Your task to perform on an android device: Open Reddit.com Image 0: 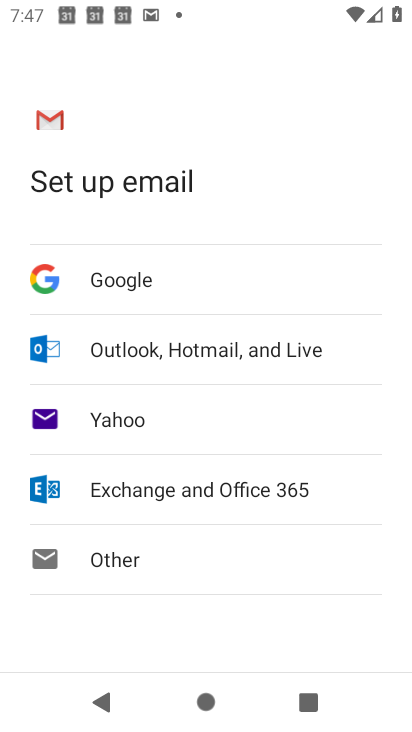
Step 0: press home button
Your task to perform on an android device: Open Reddit.com Image 1: 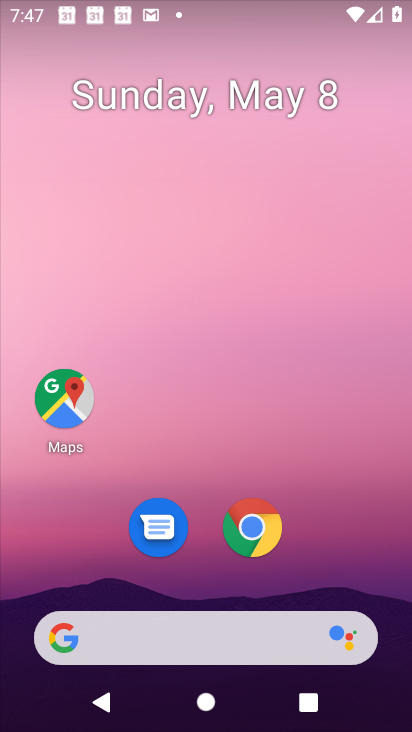
Step 1: click (252, 534)
Your task to perform on an android device: Open Reddit.com Image 2: 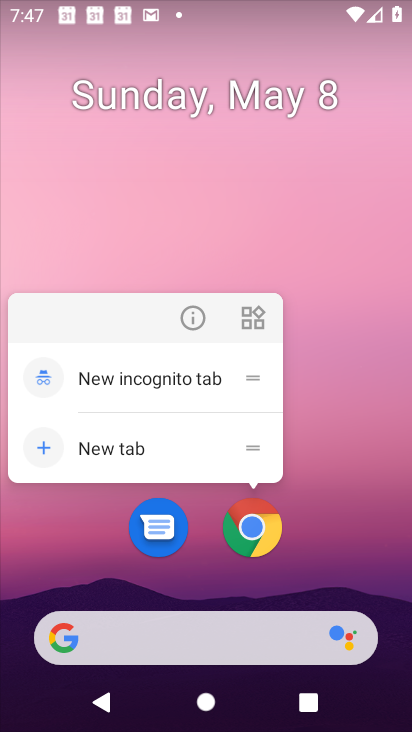
Step 2: click (252, 534)
Your task to perform on an android device: Open Reddit.com Image 3: 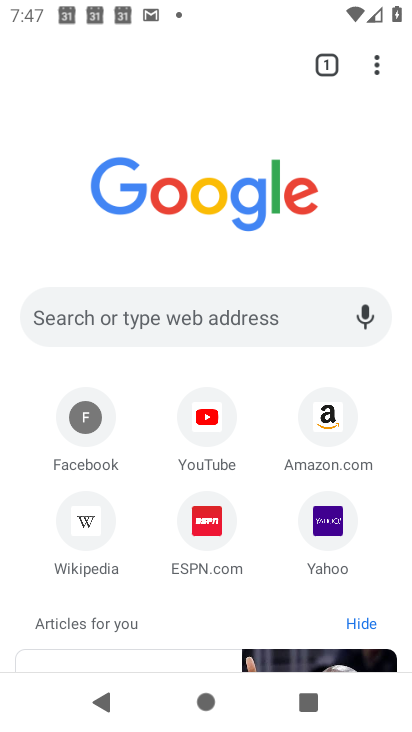
Step 3: click (232, 309)
Your task to perform on an android device: Open Reddit.com Image 4: 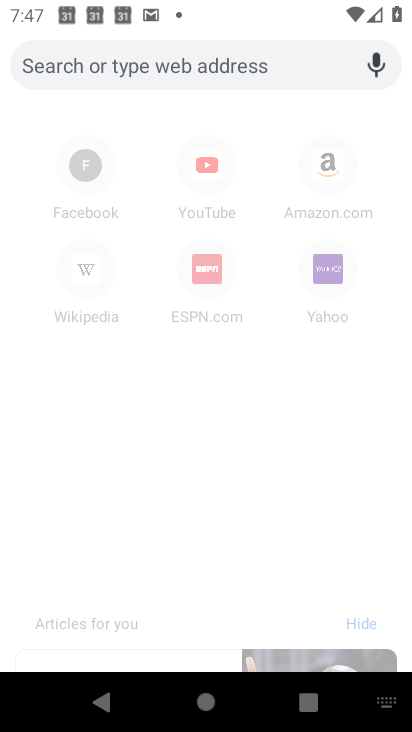
Step 4: type "Reddit.com"
Your task to perform on an android device: Open Reddit.com Image 5: 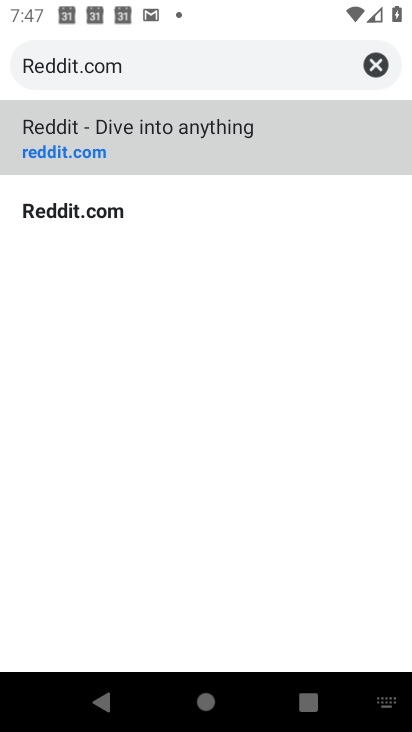
Step 5: click (114, 159)
Your task to perform on an android device: Open Reddit.com Image 6: 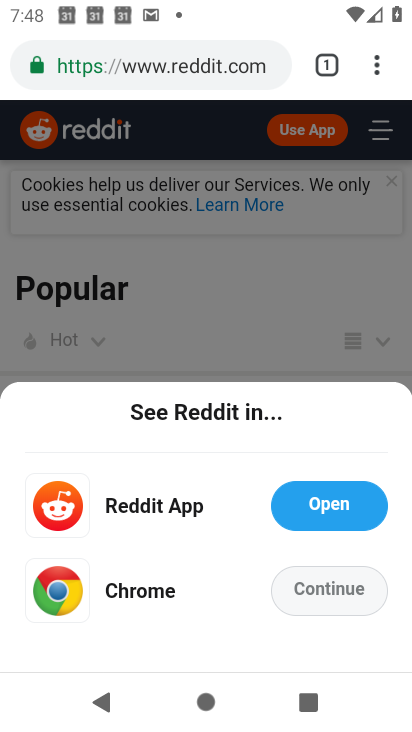
Step 6: task complete